Your task to perform on an android device: When is my next appointment? Image 0: 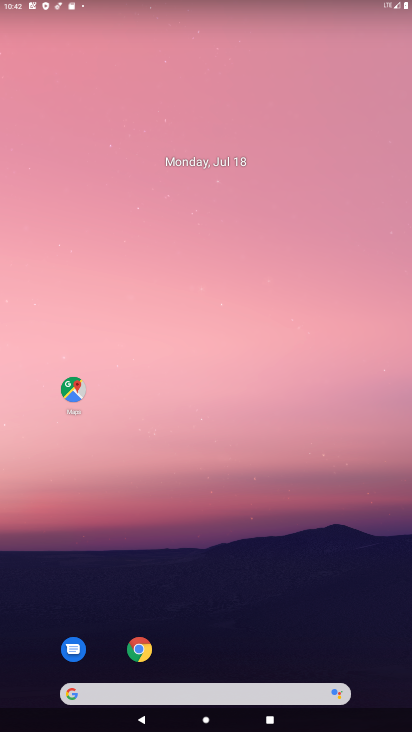
Step 0: click (185, 72)
Your task to perform on an android device: When is my next appointment? Image 1: 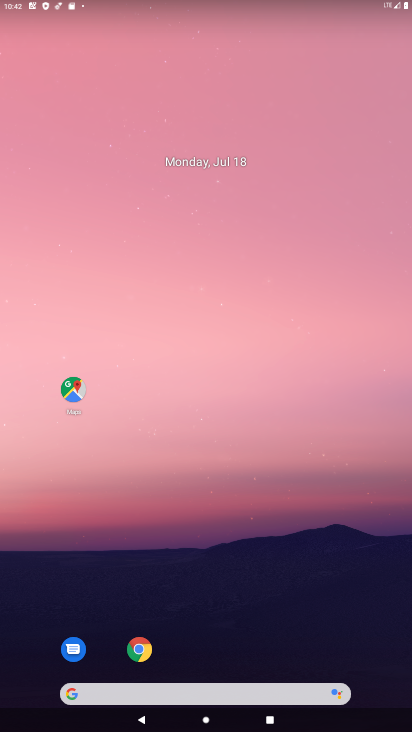
Step 1: drag from (164, 717) to (196, 54)
Your task to perform on an android device: When is my next appointment? Image 2: 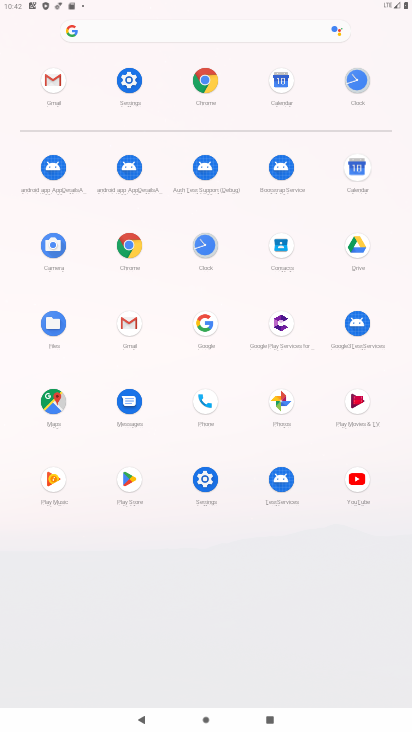
Step 2: click (356, 163)
Your task to perform on an android device: When is my next appointment? Image 3: 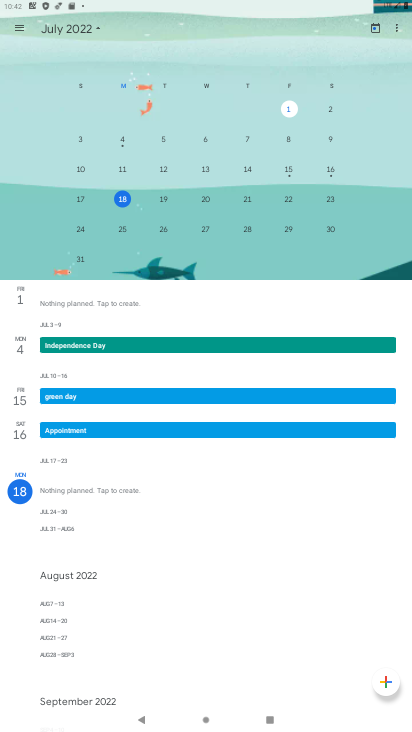
Step 3: click (398, 26)
Your task to perform on an android device: When is my next appointment? Image 4: 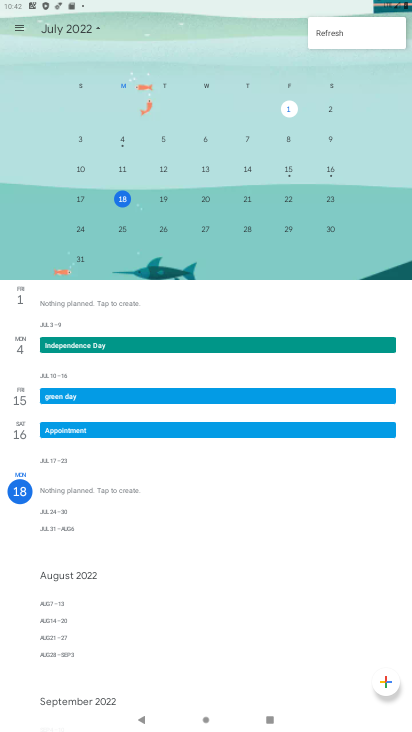
Step 4: click (17, 22)
Your task to perform on an android device: When is my next appointment? Image 5: 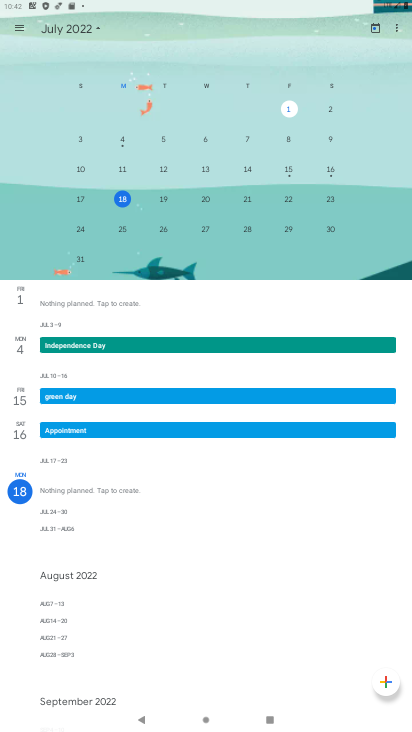
Step 5: click (22, 23)
Your task to perform on an android device: When is my next appointment? Image 6: 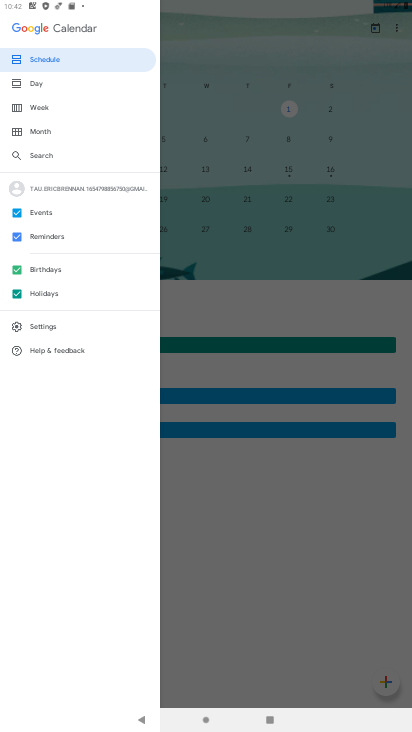
Step 6: click (83, 61)
Your task to perform on an android device: When is my next appointment? Image 7: 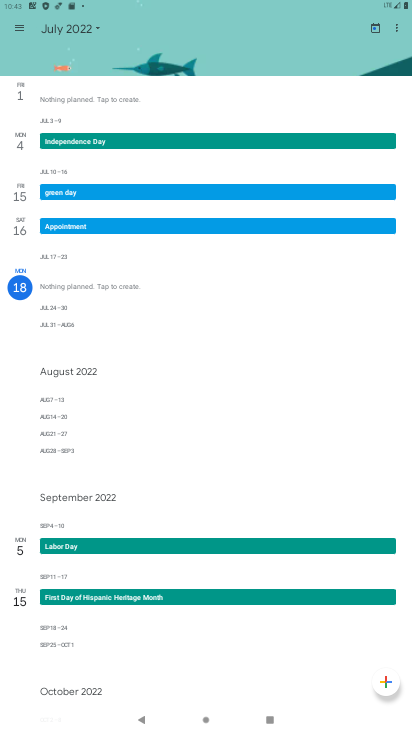
Step 7: task complete